Your task to perform on an android device: Open privacy settings Image 0: 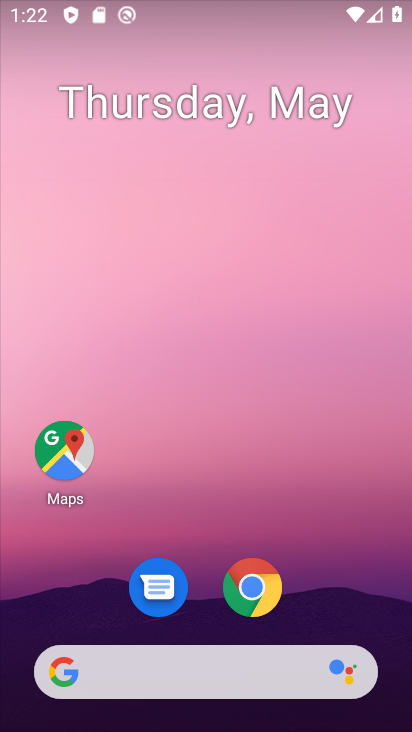
Step 0: drag from (361, 538) to (217, 111)
Your task to perform on an android device: Open privacy settings Image 1: 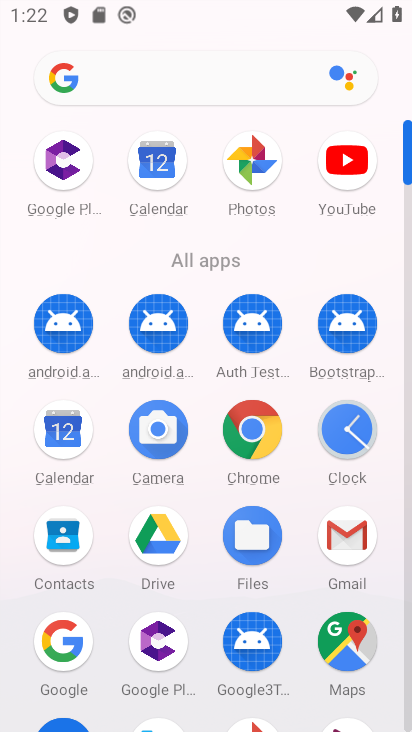
Step 1: drag from (208, 586) to (177, 209)
Your task to perform on an android device: Open privacy settings Image 2: 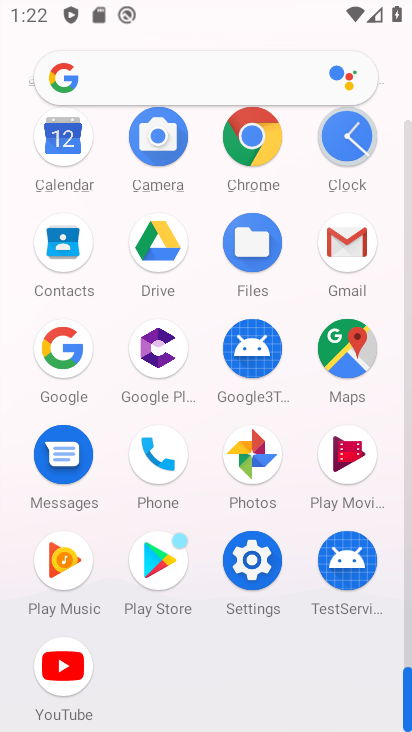
Step 2: click (252, 549)
Your task to perform on an android device: Open privacy settings Image 3: 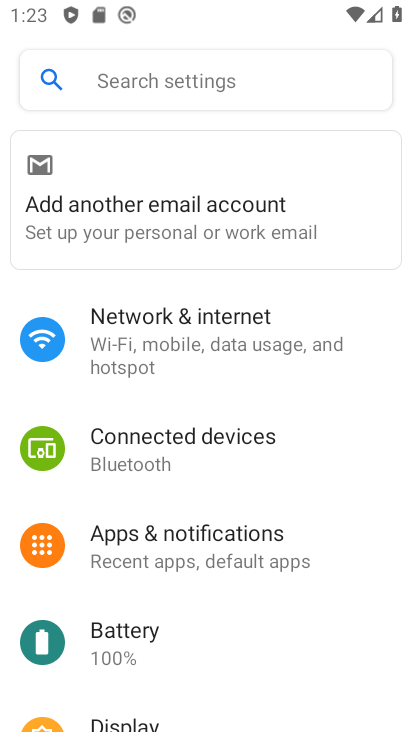
Step 3: drag from (202, 649) to (194, 369)
Your task to perform on an android device: Open privacy settings Image 4: 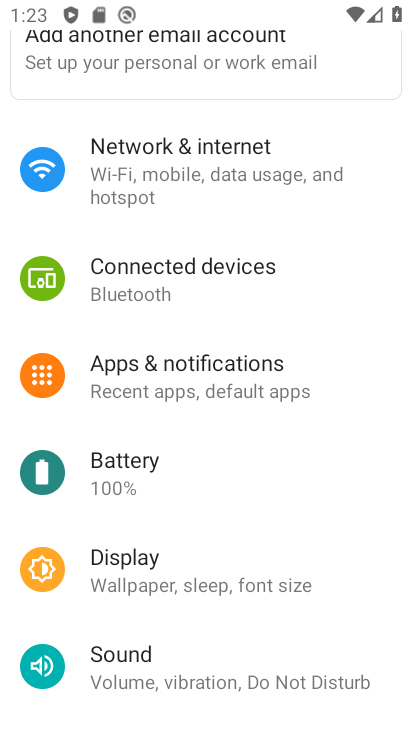
Step 4: drag from (208, 304) to (134, 85)
Your task to perform on an android device: Open privacy settings Image 5: 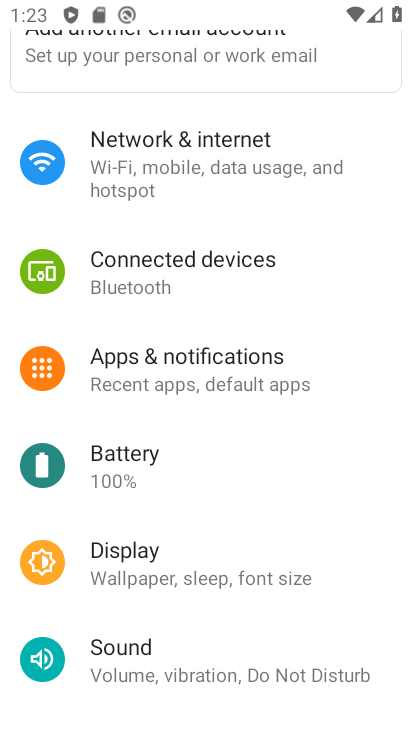
Step 5: drag from (232, 620) to (179, 357)
Your task to perform on an android device: Open privacy settings Image 6: 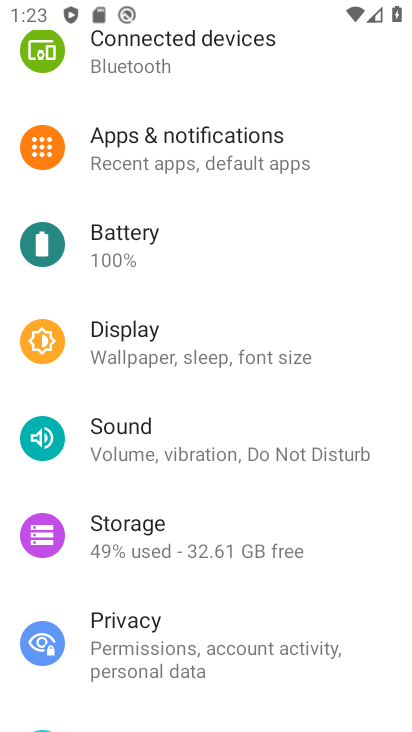
Step 6: click (136, 621)
Your task to perform on an android device: Open privacy settings Image 7: 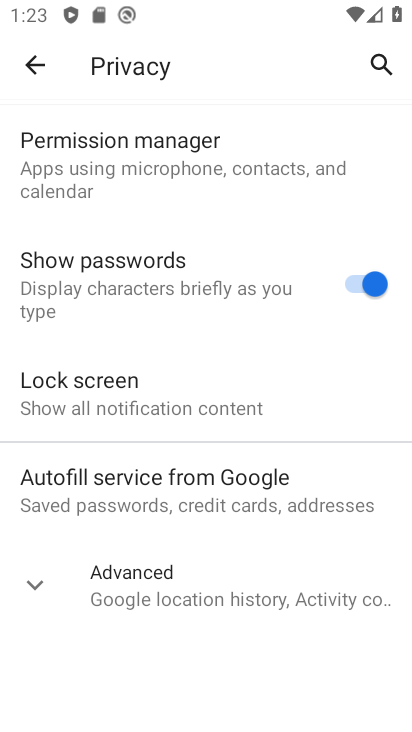
Step 7: task complete